Your task to perform on an android device: Show me popular games on the Play Store Image 0: 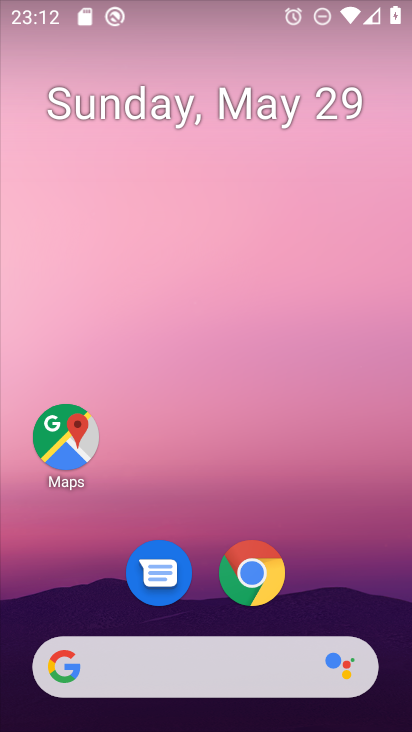
Step 0: drag from (203, 489) to (236, 2)
Your task to perform on an android device: Show me popular games on the Play Store Image 1: 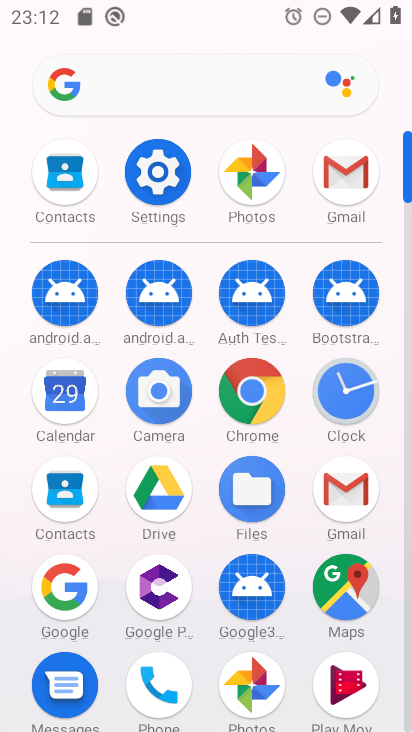
Step 1: drag from (215, 514) to (237, 171)
Your task to perform on an android device: Show me popular games on the Play Store Image 2: 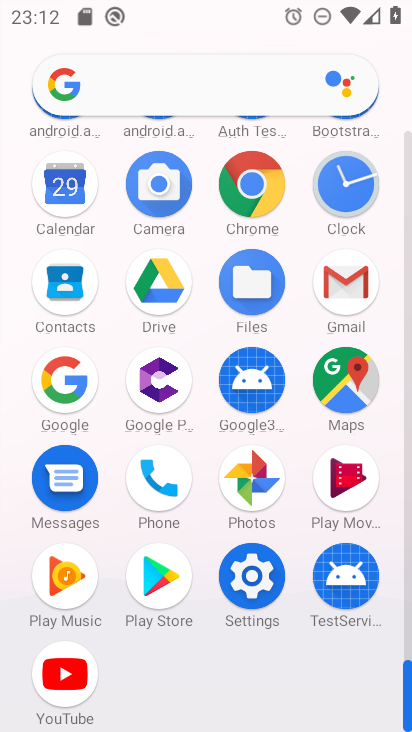
Step 2: click (163, 552)
Your task to perform on an android device: Show me popular games on the Play Store Image 3: 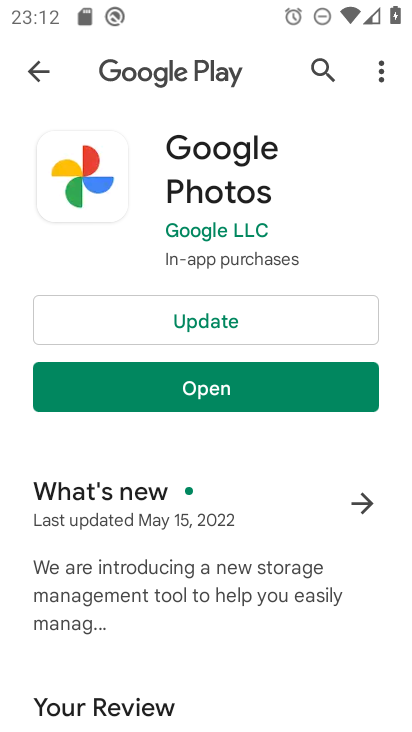
Step 3: click (40, 63)
Your task to perform on an android device: Show me popular games on the Play Store Image 4: 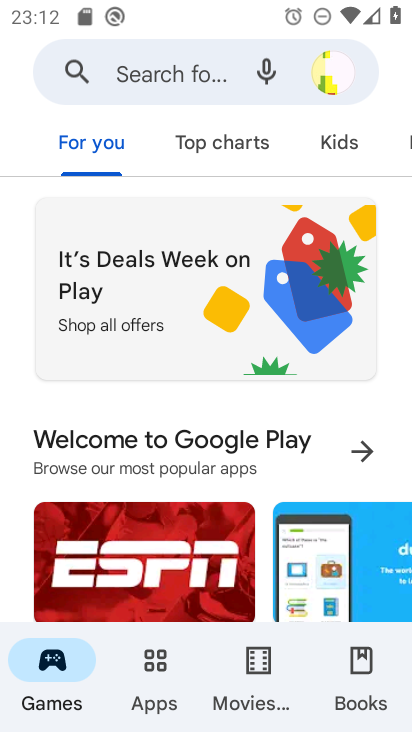
Step 4: click (153, 660)
Your task to perform on an android device: Show me popular games on the Play Store Image 5: 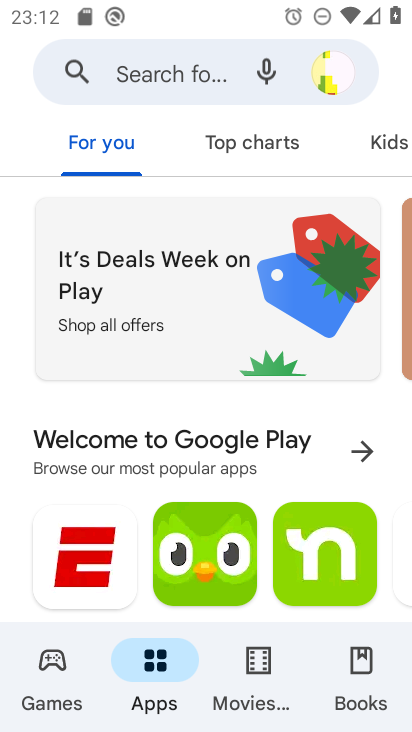
Step 5: click (53, 679)
Your task to perform on an android device: Show me popular games on the Play Store Image 6: 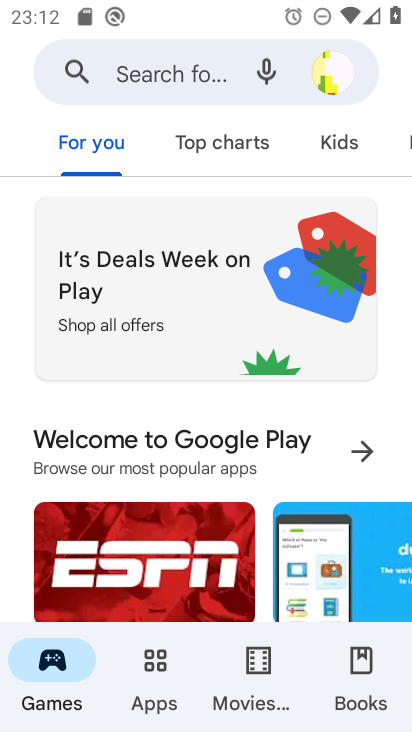
Step 6: drag from (299, 511) to (294, 61)
Your task to perform on an android device: Show me popular games on the Play Store Image 7: 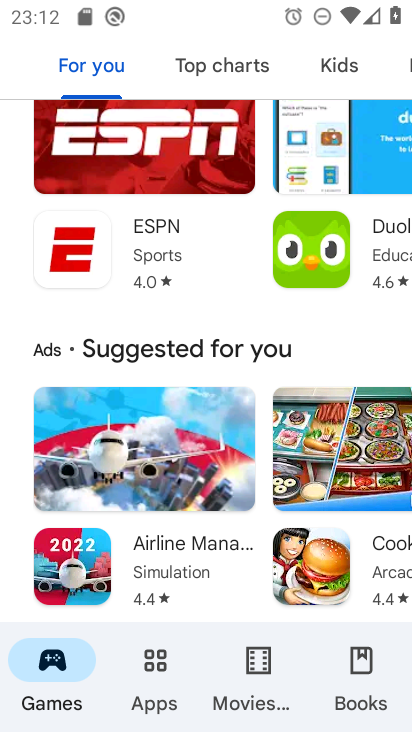
Step 7: drag from (275, 468) to (293, 90)
Your task to perform on an android device: Show me popular games on the Play Store Image 8: 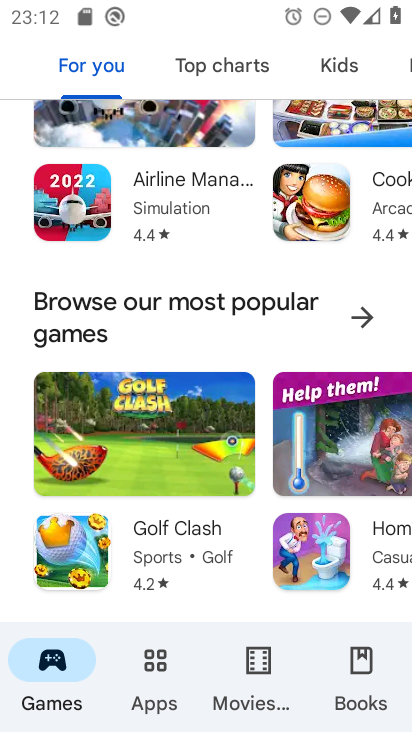
Step 8: click (368, 311)
Your task to perform on an android device: Show me popular games on the Play Store Image 9: 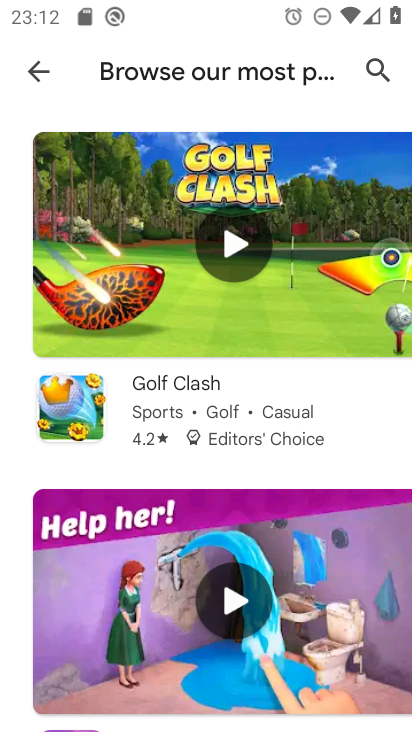
Step 9: task complete